Your task to perform on an android device: remove spam from my inbox in the gmail app Image 0: 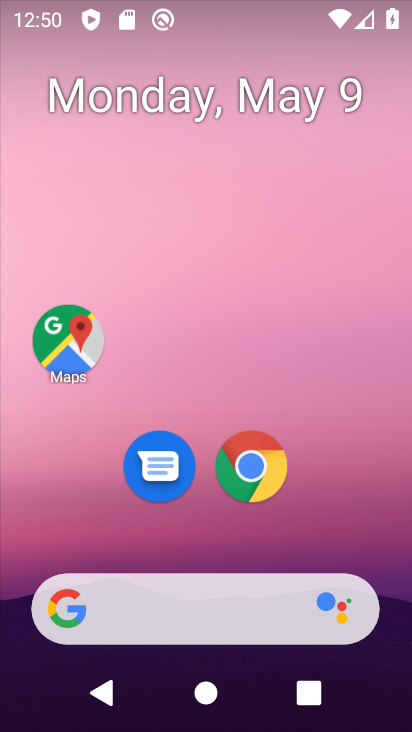
Step 0: drag from (241, 461) to (342, 21)
Your task to perform on an android device: remove spam from my inbox in the gmail app Image 1: 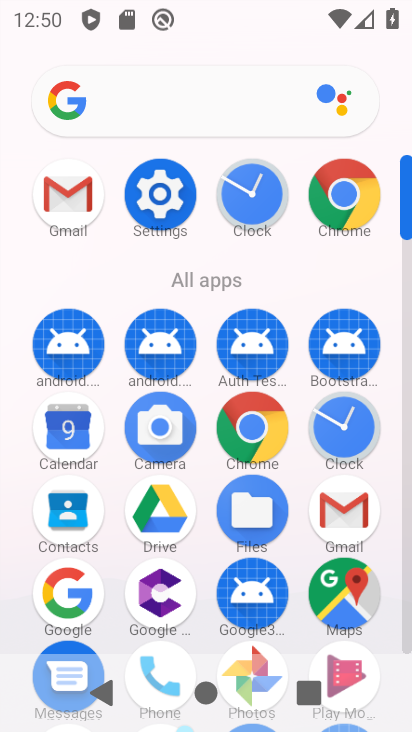
Step 1: click (338, 505)
Your task to perform on an android device: remove spam from my inbox in the gmail app Image 2: 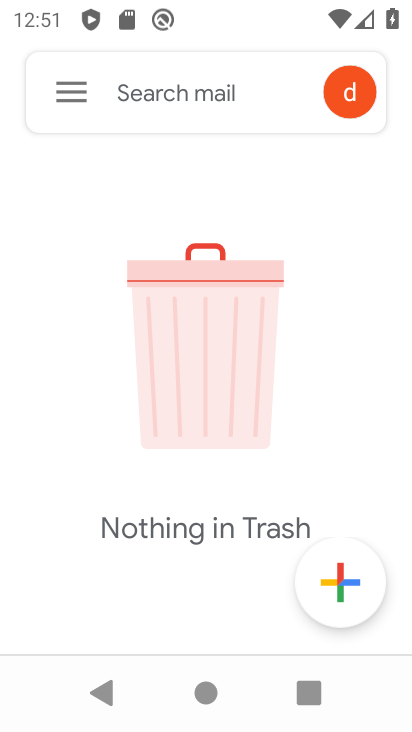
Step 2: click (59, 93)
Your task to perform on an android device: remove spam from my inbox in the gmail app Image 3: 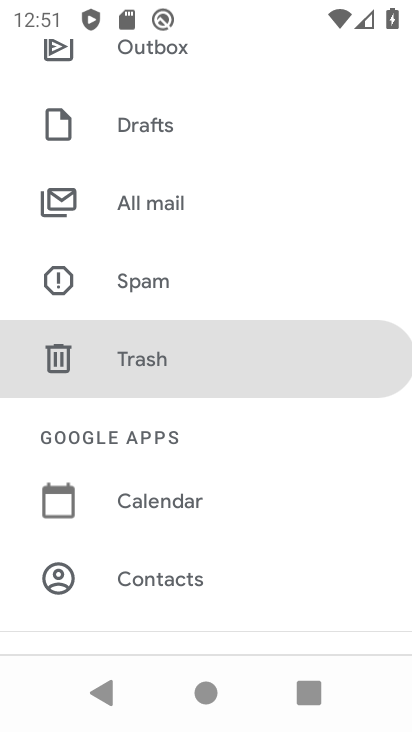
Step 3: drag from (175, 262) to (165, 403)
Your task to perform on an android device: remove spam from my inbox in the gmail app Image 4: 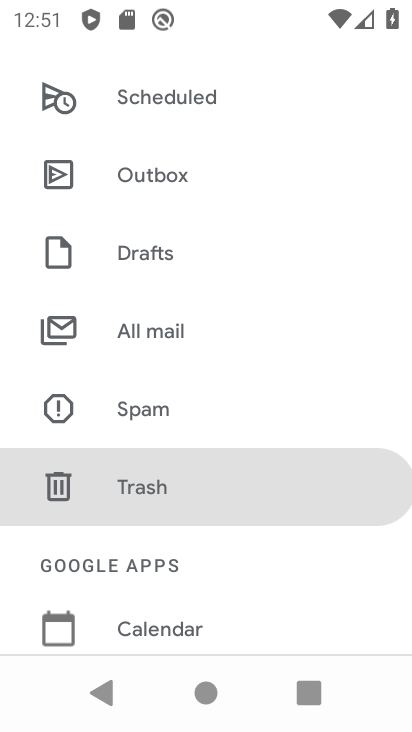
Step 4: click (176, 413)
Your task to perform on an android device: remove spam from my inbox in the gmail app Image 5: 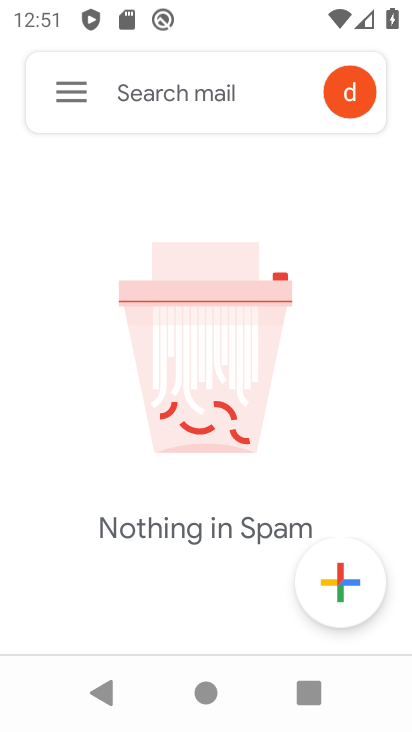
Step 5: task complete